Your task to perform on an android device: install app "Paramount+ | Peak Streaming" Image 0: 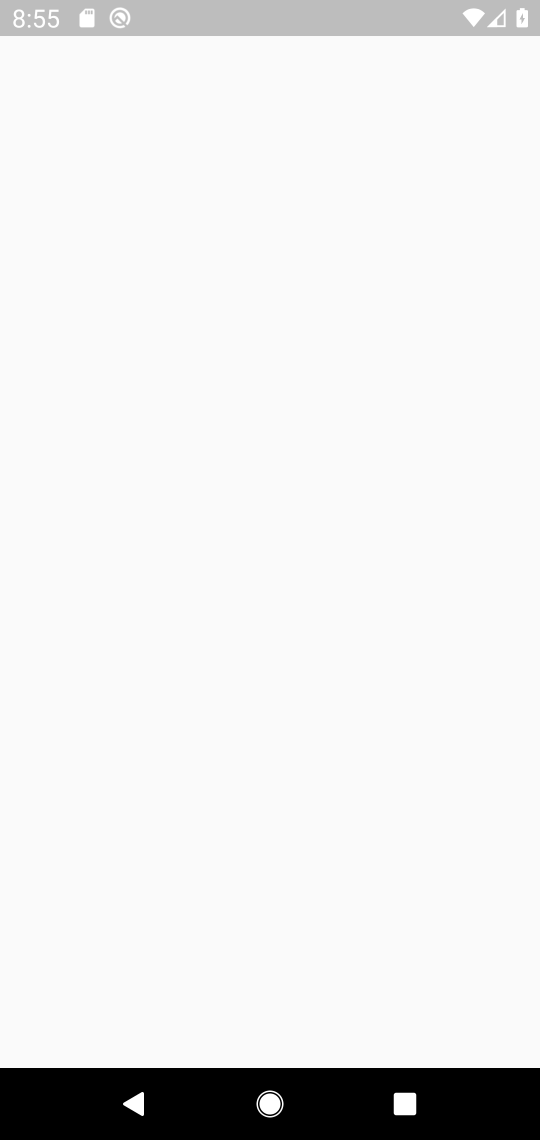
Step 0: press home button
Your task to perform on an android device: install app "Paramount+ | Peak Streaming" Image 1: 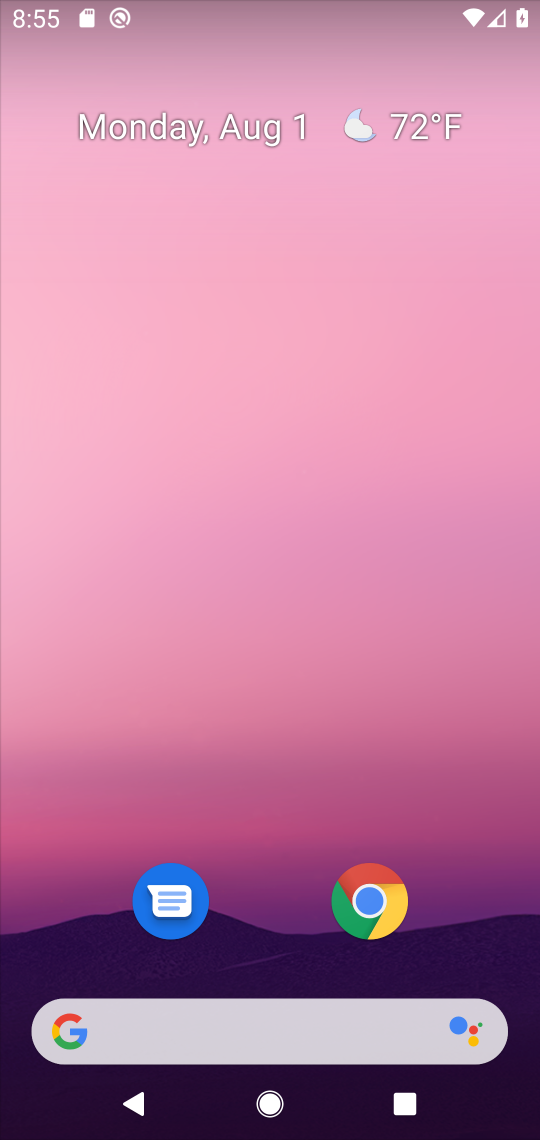
Step 1: drag from (261, 926) to (415, 79)
Your task to perform on an android device: install app "Paramount+ | Peak Streaming" Image 2: 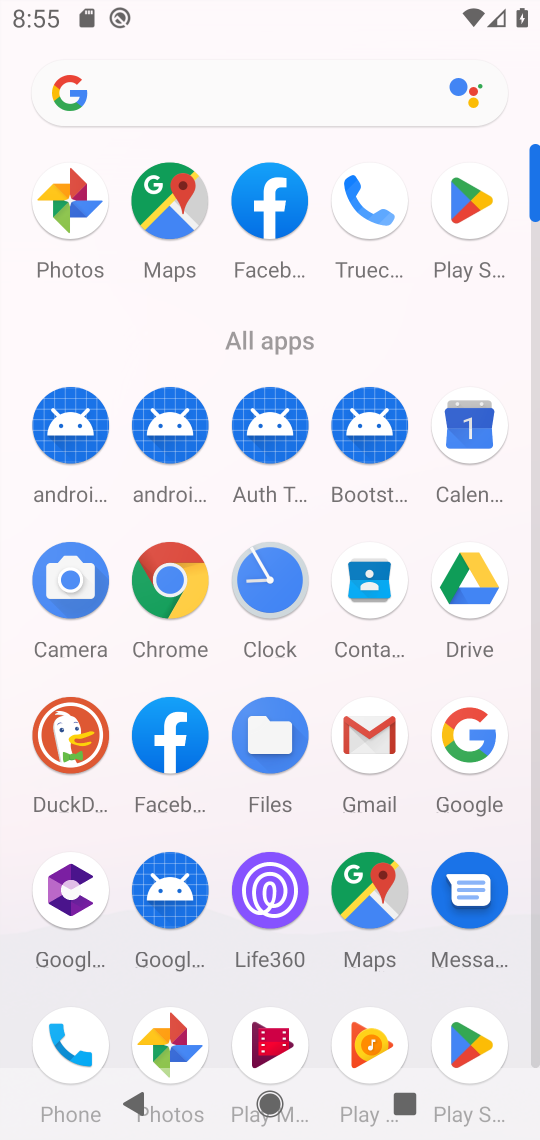
Step 2: click (465, 216)
Your task to perform on an android device: install app "Paramount+ | Peak Streaming" Image 3: 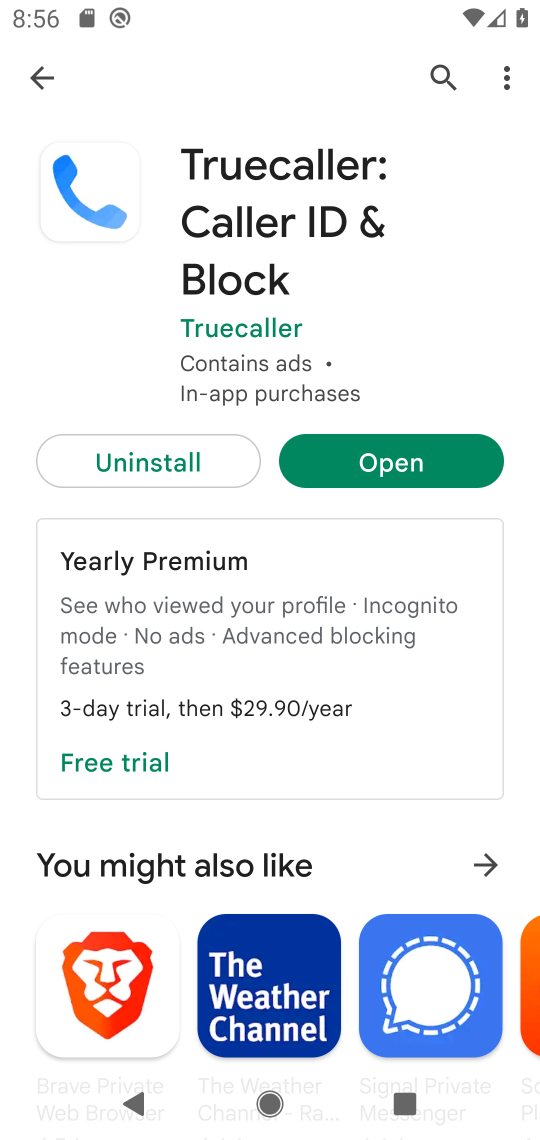
Step 3: click (442, 86)
Your task to perform on an android device: install app "Paramount+ | Peak Streaming" Image 4: 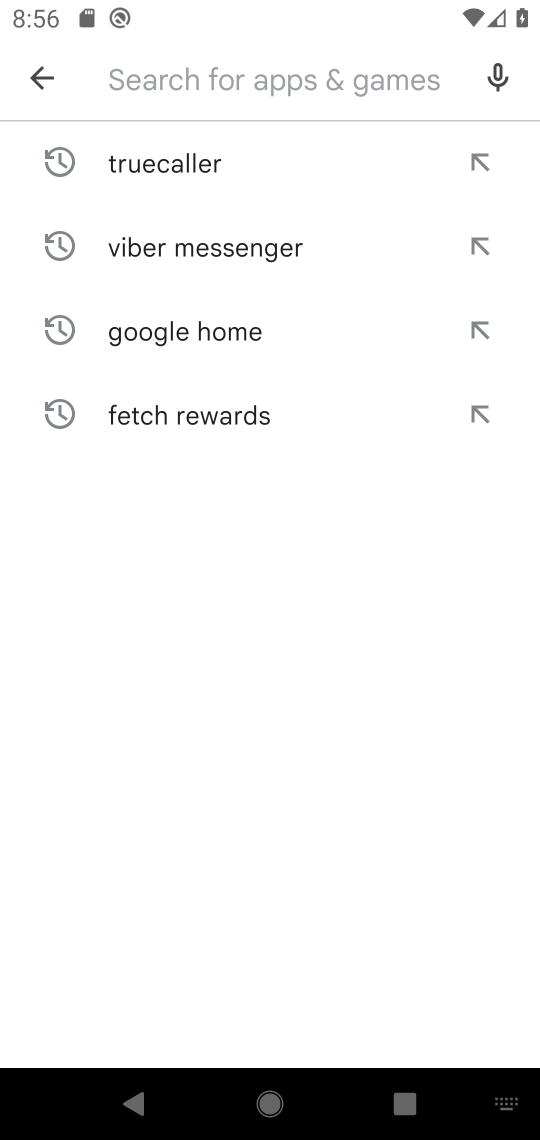
Step 4: type "paramount+ peak streaming"
Your task to perform on an android device: install app "Paramount+ | Peak Streaming" Image 5: 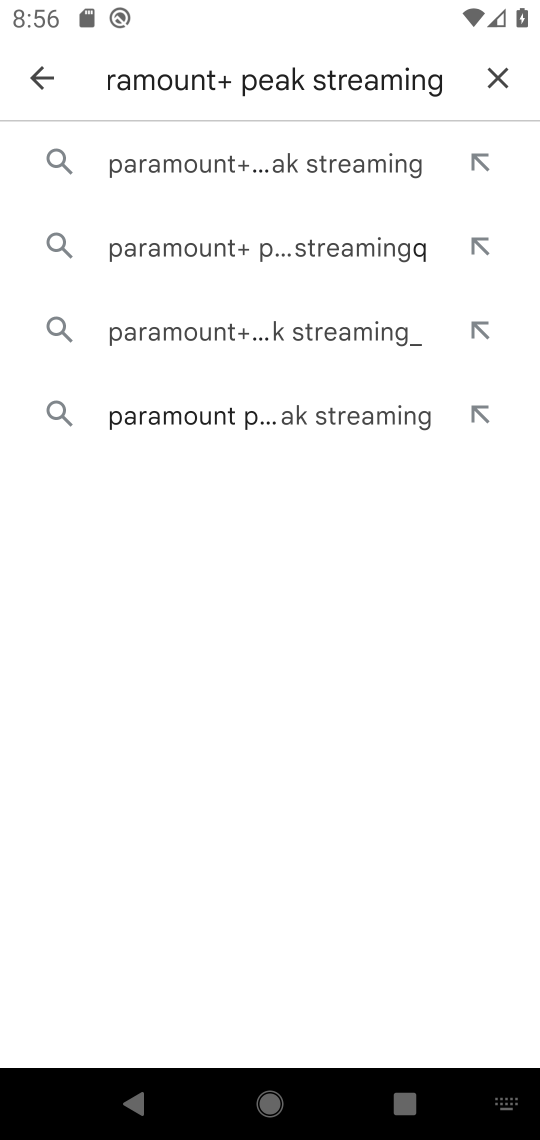
Step 5: click (319, 152)
Your task to perform on an android device: install app "Paramount+ | Peak Streaming" Image 6: 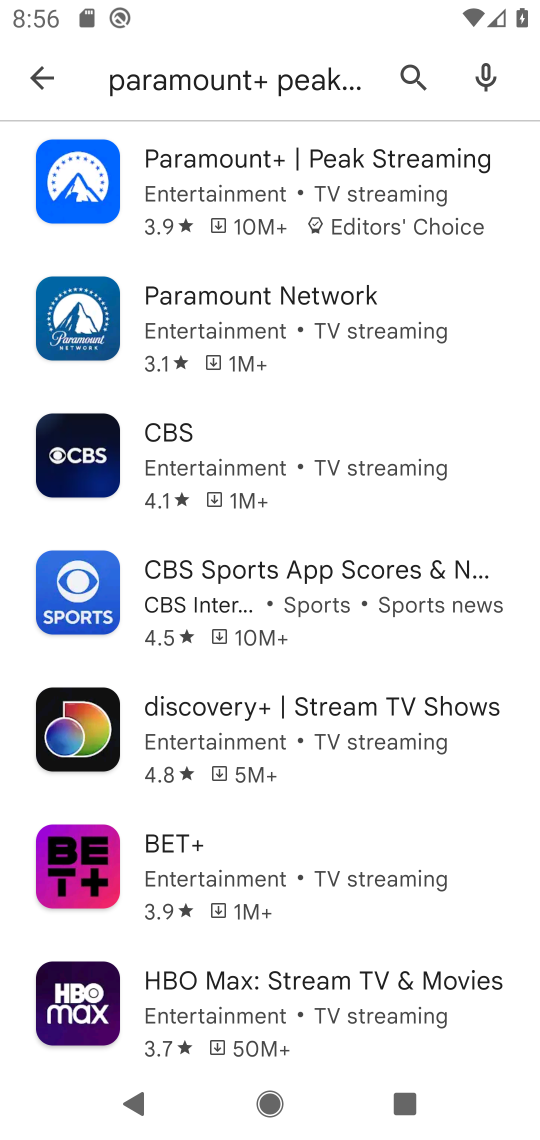
Step 6: click (308, 169)
Your task to perform on an android device: install app "Paramount+ | Peak Streaming" Image 7: 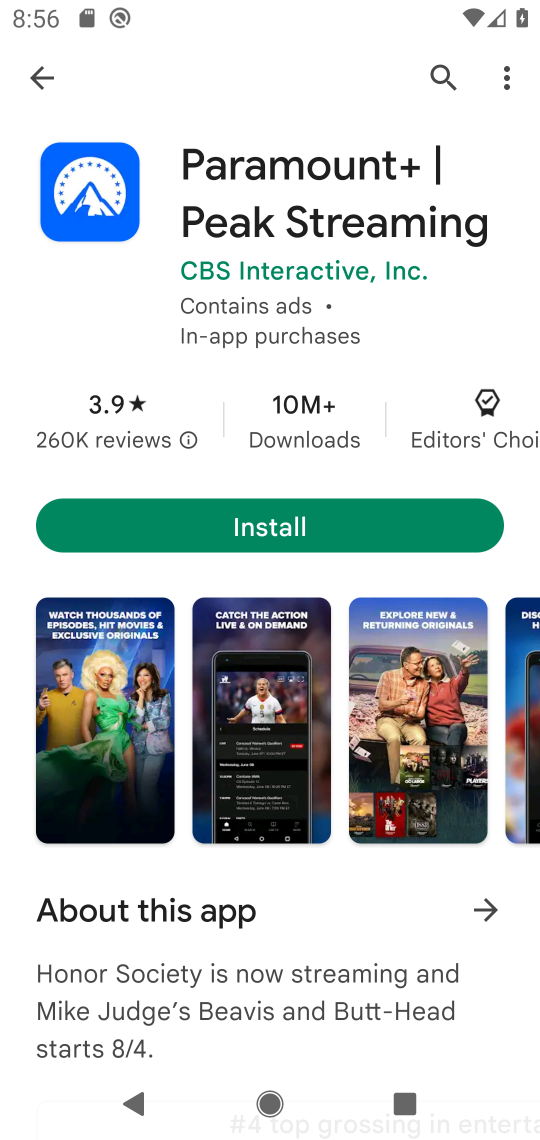
Step 7: click (267, 534)
Your task to perform on an android device: install app "Paramount+ | Peak Streaming" Image 8: 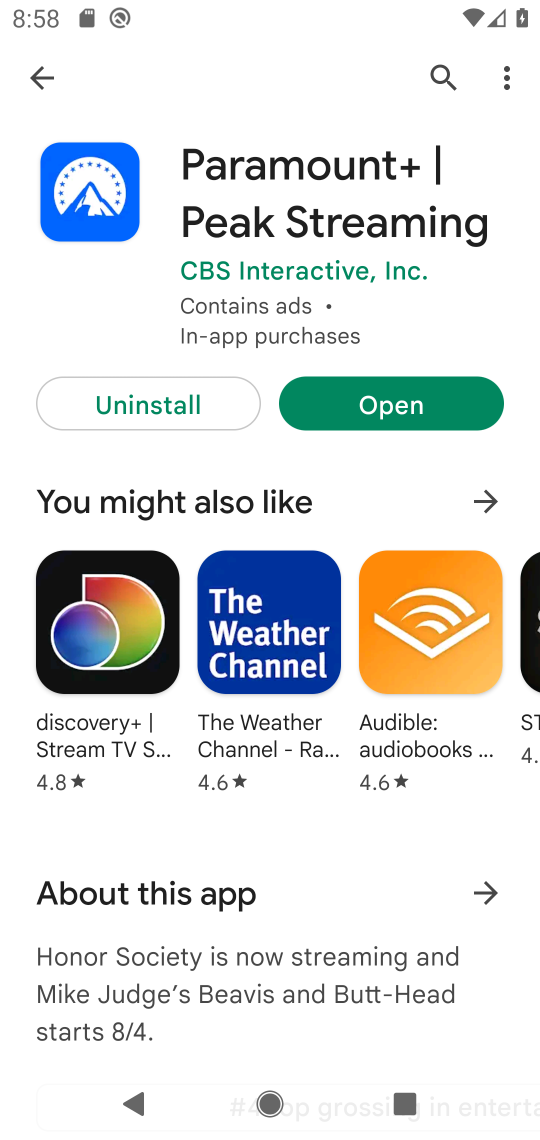
Step 8: task complete